Your task to perform on an android device: Do I have any events today? Image 0: 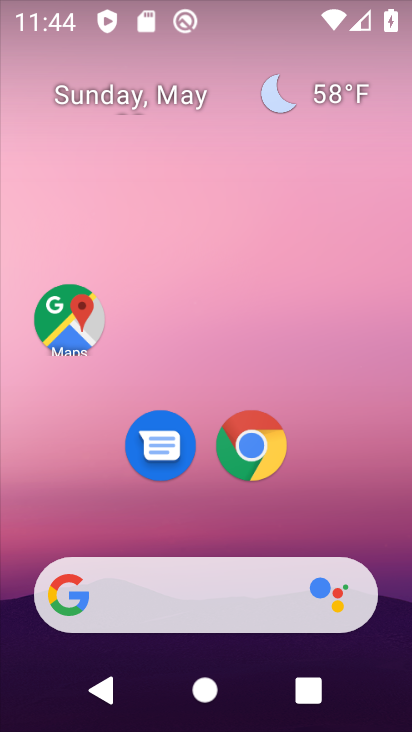
Step 0: press home button
Your task to perform on an android device: Do I have any events today? Image 1: 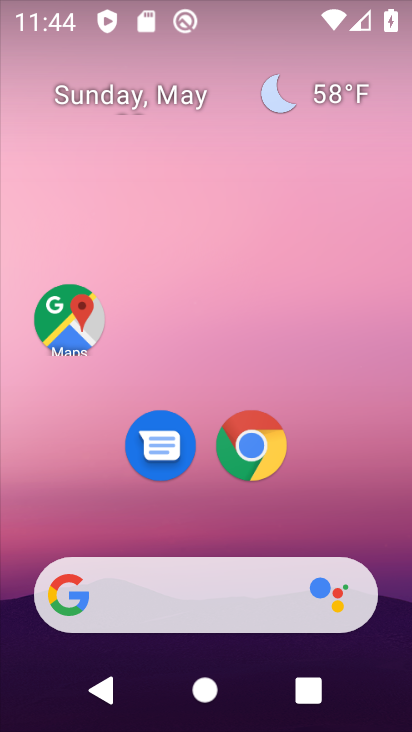
Step 1: drag from (204, 530) to (250, 18)
Your task to perform on an android device: Do I have any events today? Image 2: 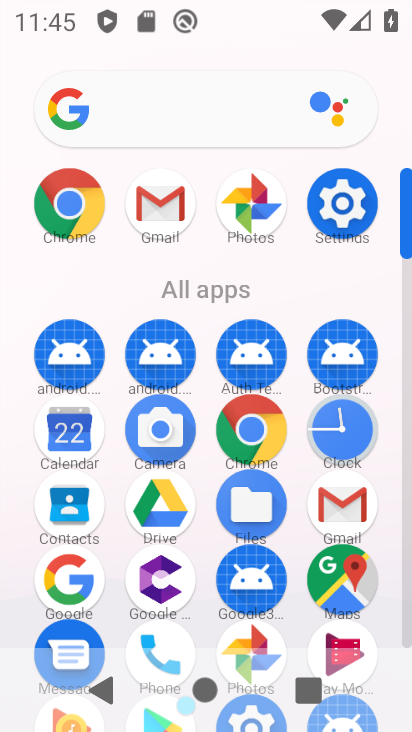
Step 2: click (65, 435)
Your task to perform on an android device: Do I have any events today? Image 3: 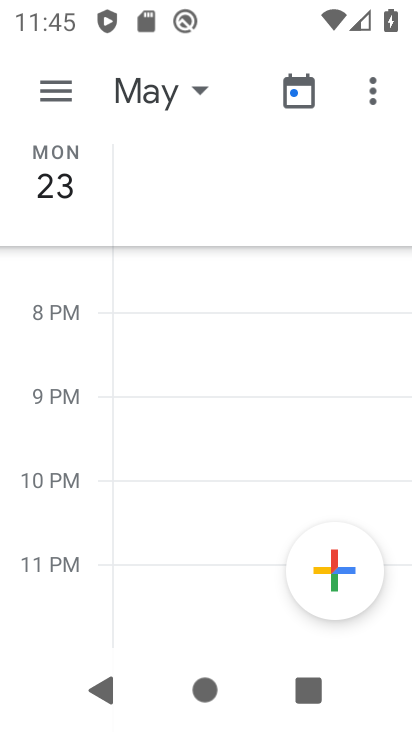
Step 3: click (197, 88)
Your task to perform on an android device: Do I have any events today? Image 4: 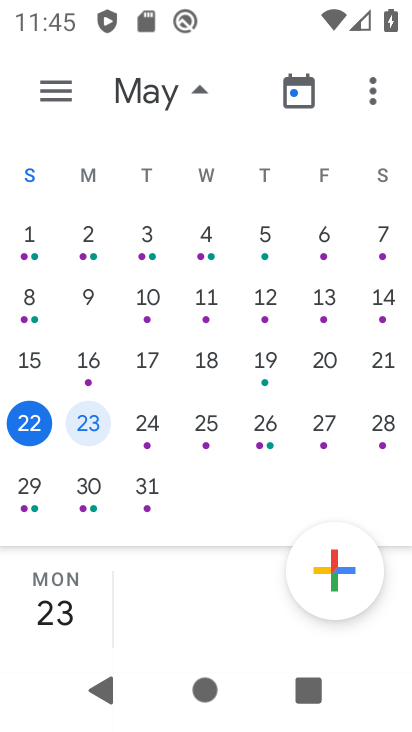
Step 4: click (23, 420)
Your task to perform on an android device: Do I have any events today? Image 5: 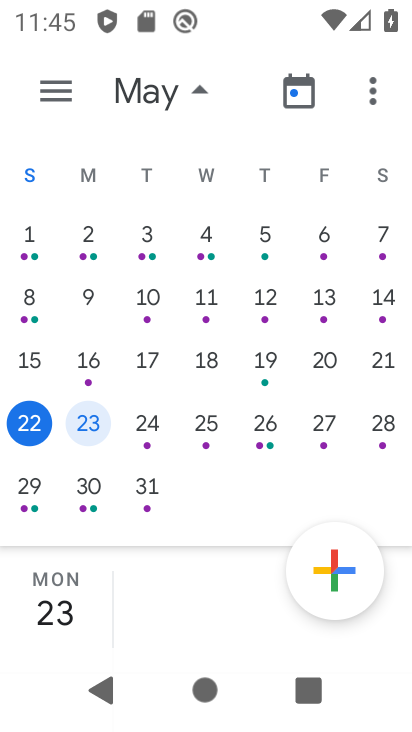
Step 5: click (34, 410)
Your task to perform on an android device: Do I have any events today? Image 6: 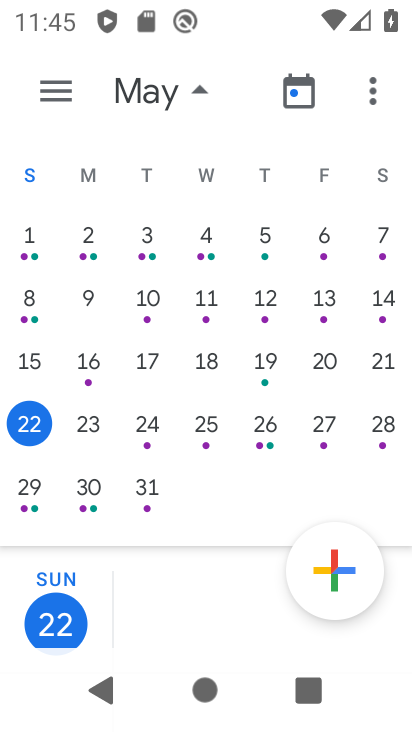
Step 6: click (201, 88)
Your task to perform on an android device: Do I have any events today? Image 7: 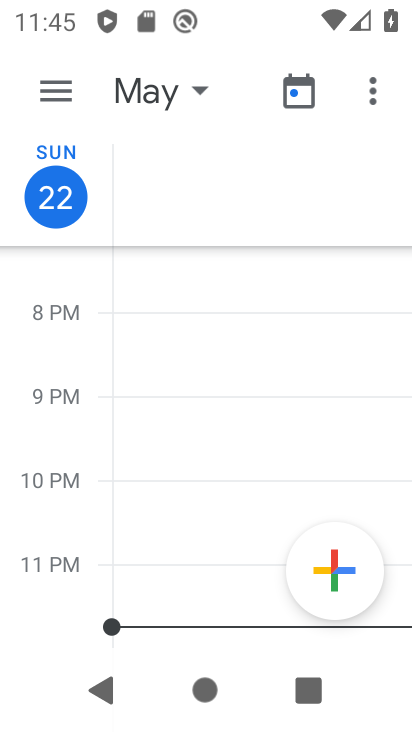
Step 7: task complete